Your task to perform on an android device: Go to Android settings Image 0: 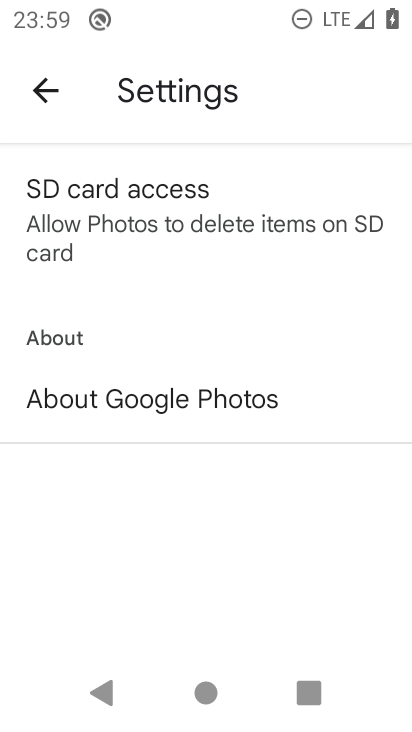
Step 0: click (330, 551)
Your task to perform on an android device: Go to Android settings Image 1: 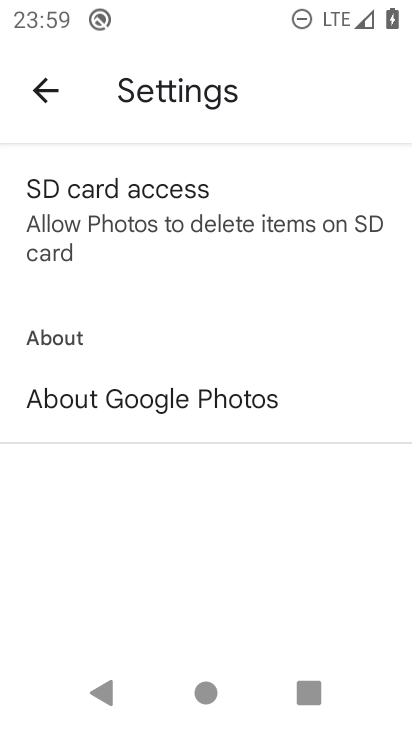
Step 1: press home button
Your task to perform on an android device: Go to Android settings Image 2: 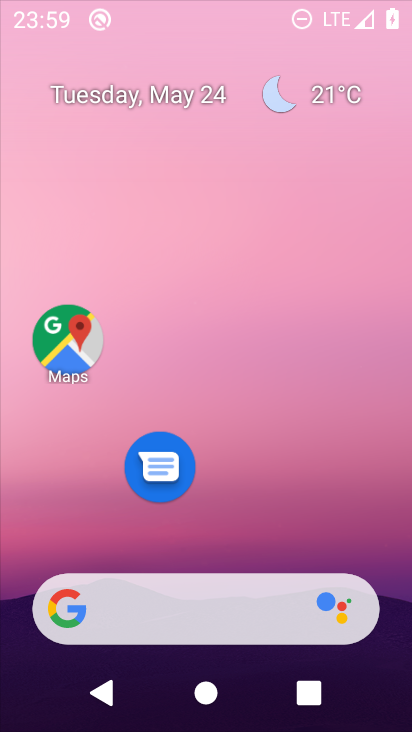
Step 2: drag from (180, 575) to (102, 0)
Your task to perform on an android device: Go to Android settings Image 3: 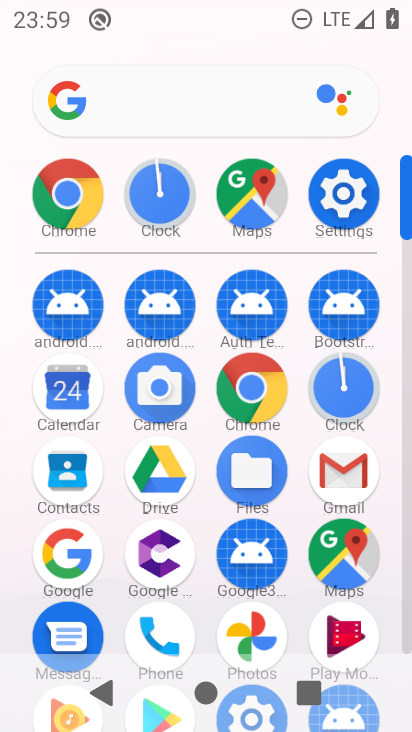
Step 3: drag from (199, 601) to (209, 225)
Your task to perform on an android device: Go to Android settings Image 4: 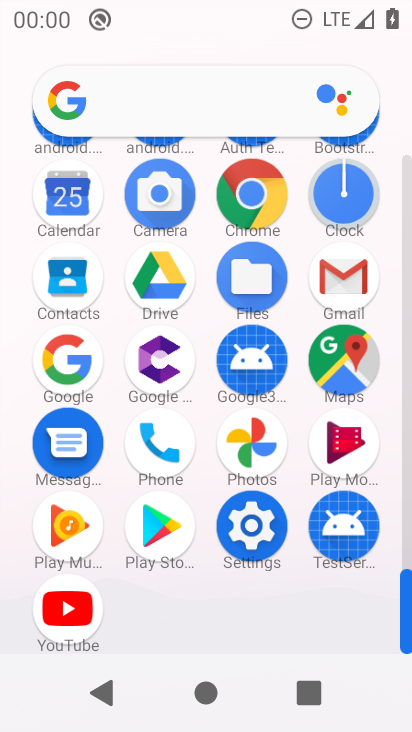
Step 4: click (257, 518)
Your task to perform on an android device: Go to Android settings Image 5: 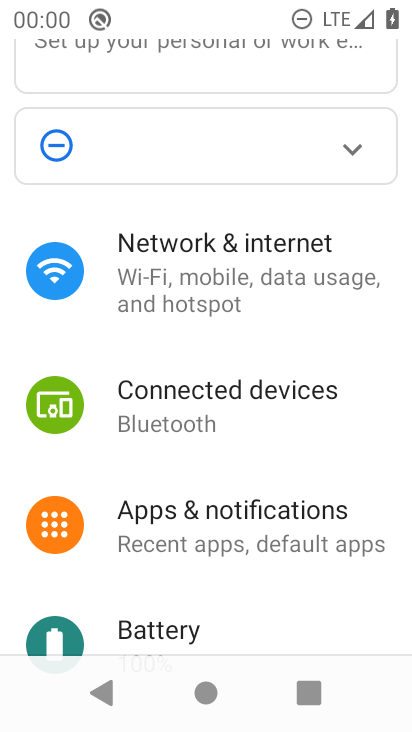
Step 5: drag from (245, 623) to (297, 117)
Your task to perform on an android device: Go to Android settings Image 6: 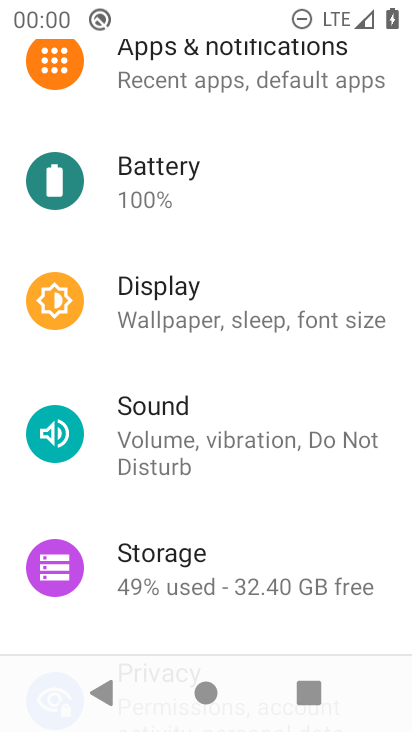
Step 6: drag from (210, 589) to (241, 131)
Your task to perform on an android device: Go to Android settings Image 7: 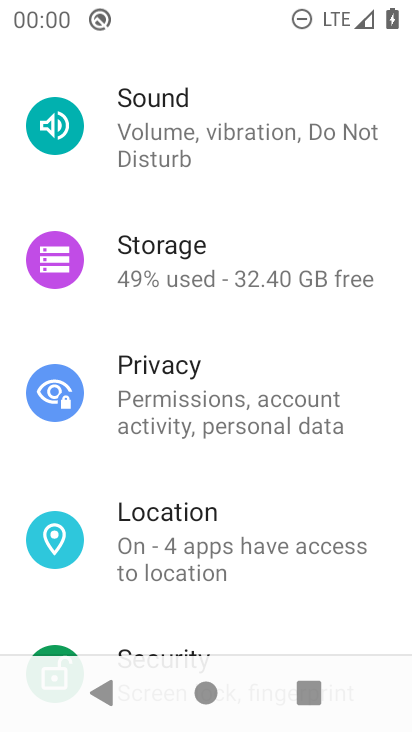
Step 7: drag from (204, 532) to (238, 131)
Your task to perform on an android device: Go to Android settings Image 8: 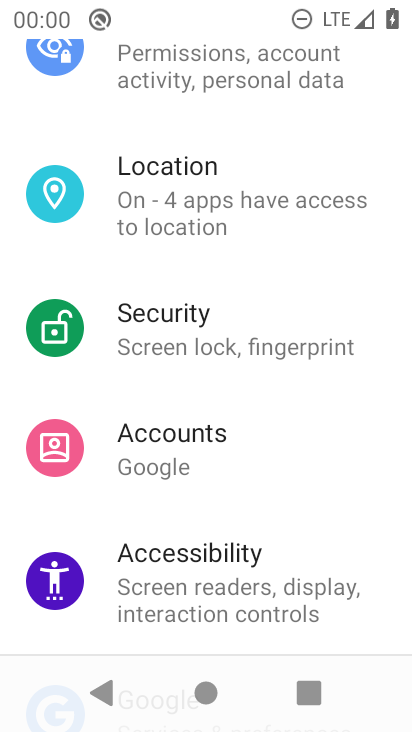
Step 8: drag from (216, 576) to (216, 203)
Your task to perform on an android device: Go to Android settings Image 9: 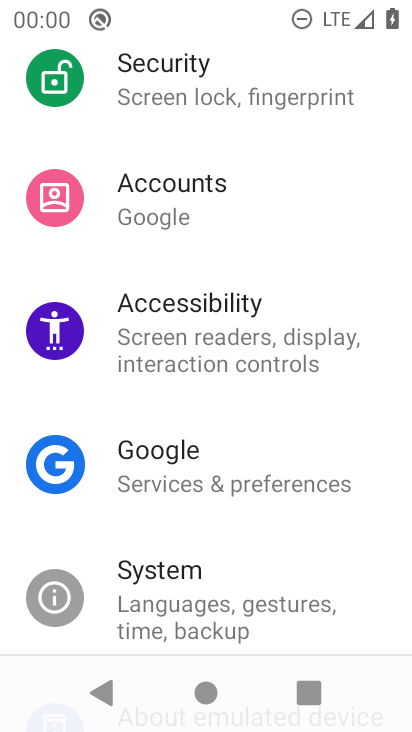
Step 9: drag from (175, 484) to (196, 137)
Your task to perform on an android device: Go to Android settings Image 10: 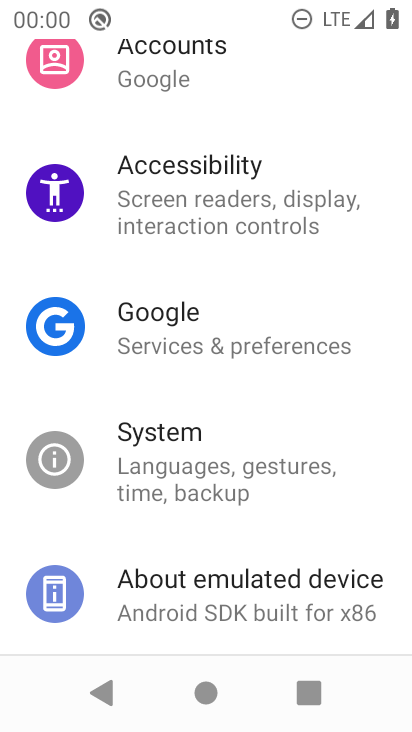
Step 10: click (208, 600)
Your task to perform on an android device: Go to Android settings Image 11: 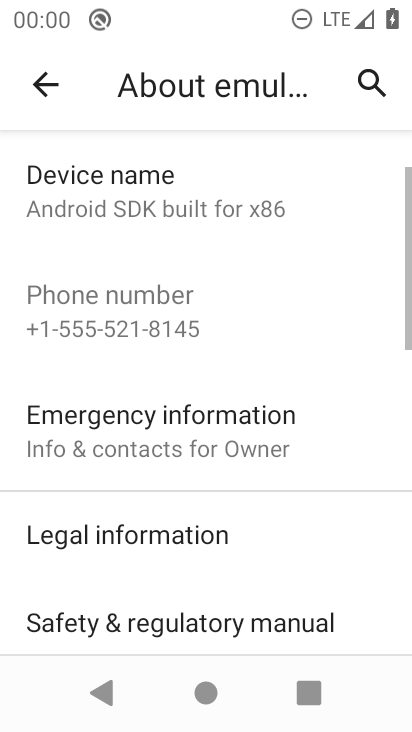
Step 11: drag from (198, 562) to (195, 243)
Your task to perform on an android device: Go to Android settings Image 12: 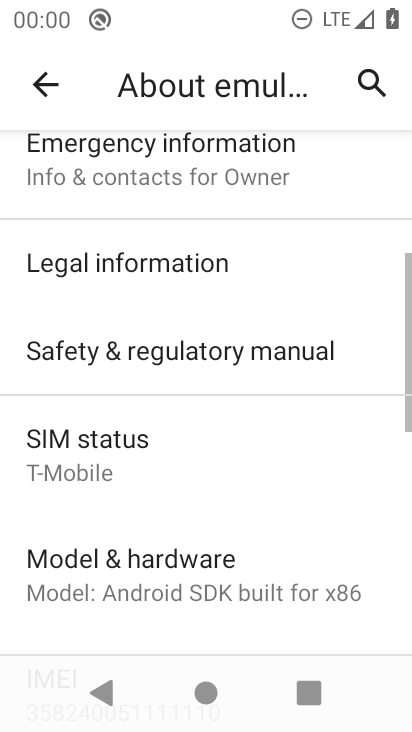
Step 12: drag from (161, 512) to (204, 210)
Your task to perform on an android device: Go to Android settings Image 13: 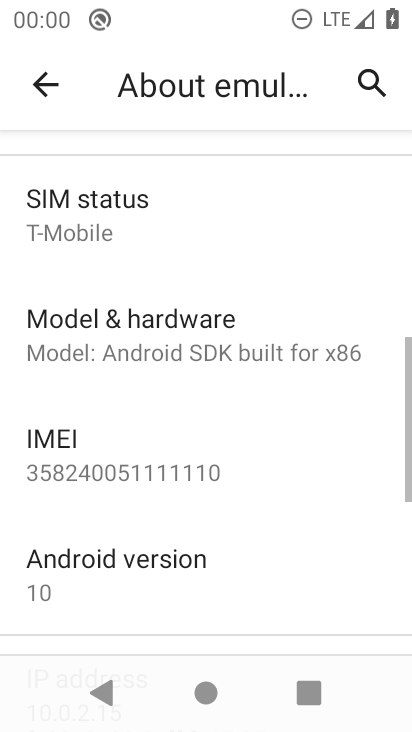
Step 13: drag from (146, 599) to (164, 307)
Your task to perform on an android device: Go to Android settings Image 14: 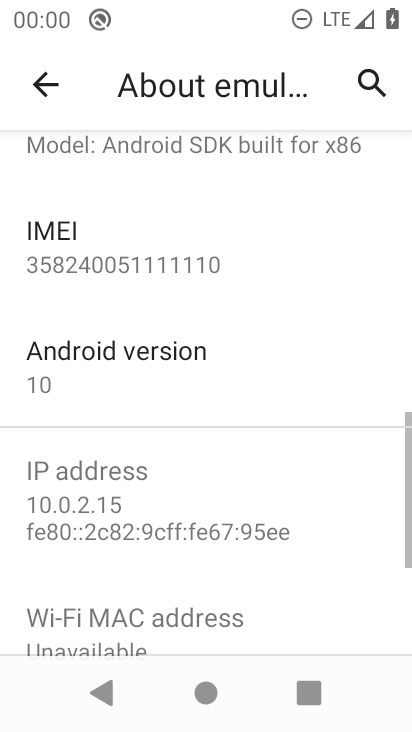
Step 14: click (147, 364)
Your task to perform on an android device: Go to Android settings Image 15: 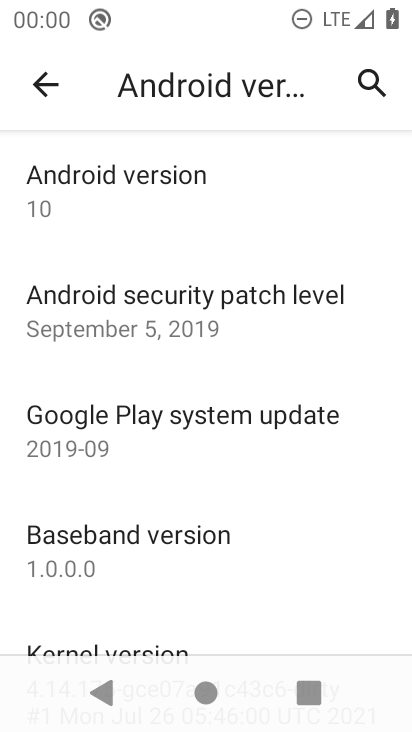
Step 15: click (176, 210)
Your task to perform on an android device: Go to Android settings Image 16: 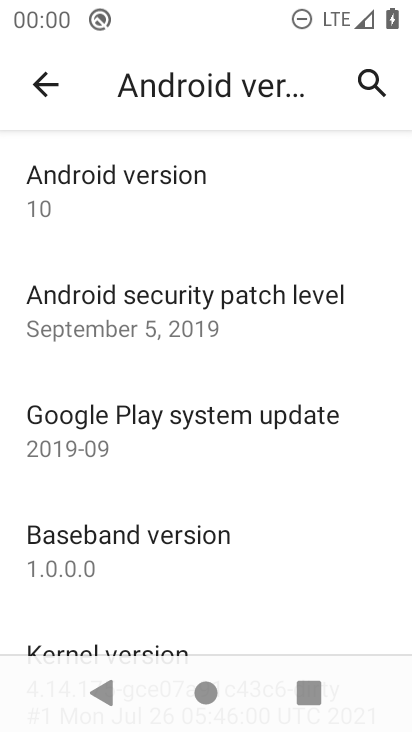
Step 16: task complete